Your task to perform on an android device: open a new tab in the chrome app Image 0: 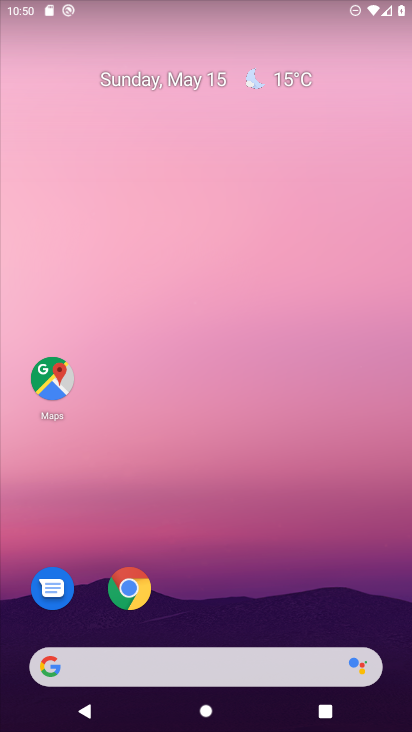
Step 0: click (132, 594)
Your task to perform on an android device: open a new tab in the chrome app Image 1: 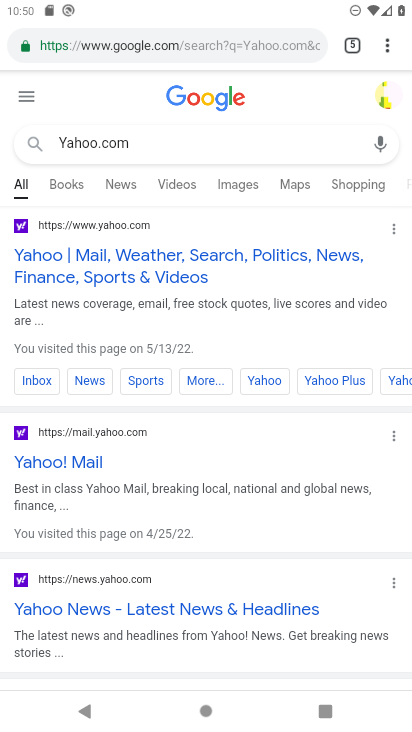
Step 1: click (391, 51)
Your task to perform on an android device: open a new tab in the chrome app Image 2: 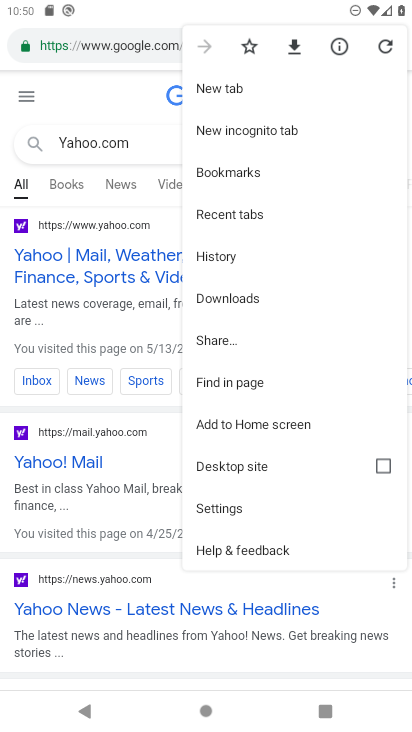
Step 2: click (232, 86)
Your task to perform on an android device: open a new tab in the chrome app Image 3: 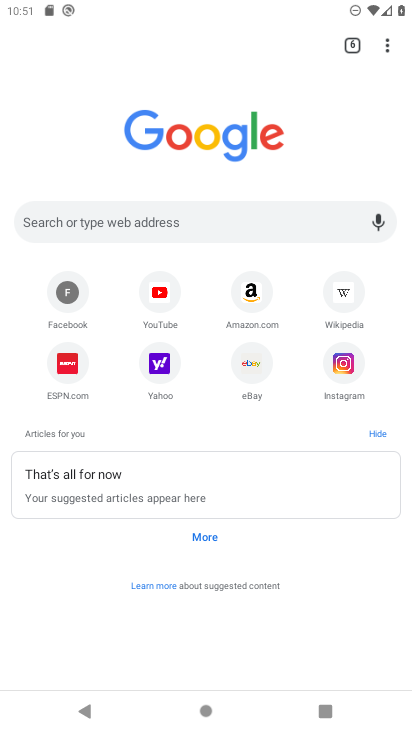
Step 3: task complete